Your task to perform on an android device: turn off improve location accuracy Image 0: 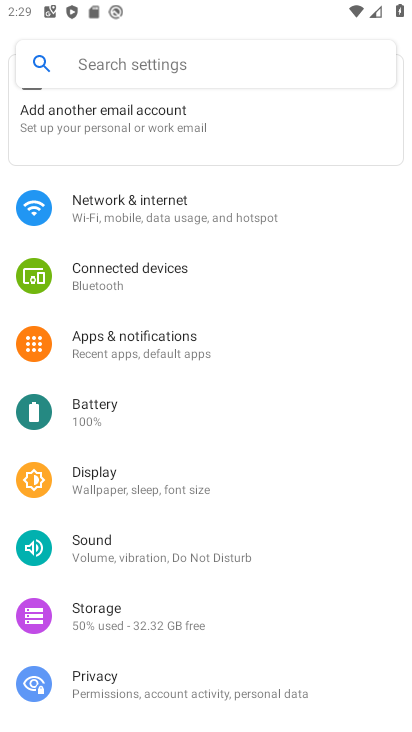
Step 0: press home button
Your task to perform on an android device: turn off improve location accuracy Image 1: 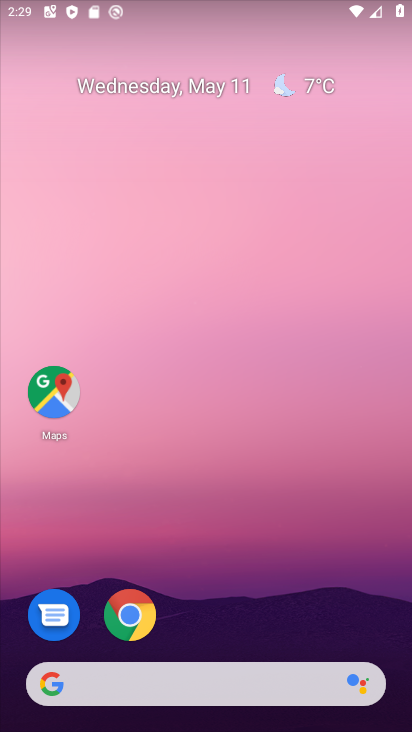
Step 1: drag from (286, 431) to (306, 195)
Your task to perform on an android device: turn off improve location accuracy Image 2: 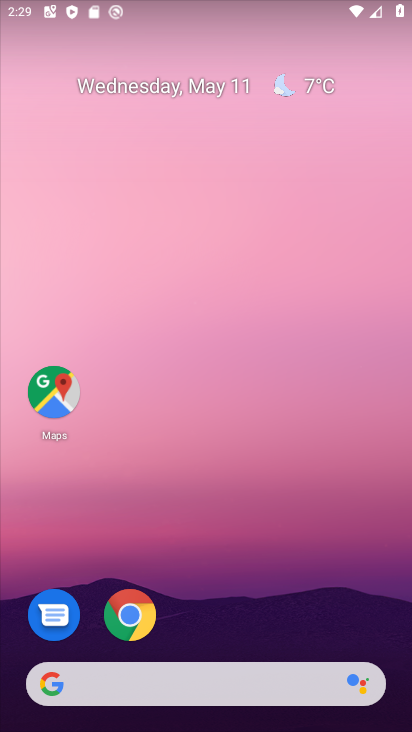
Step 2: drag from (307, 615) to (311, 192)
Your task to perform on an android device: turn off improve location accuracy Image 3: 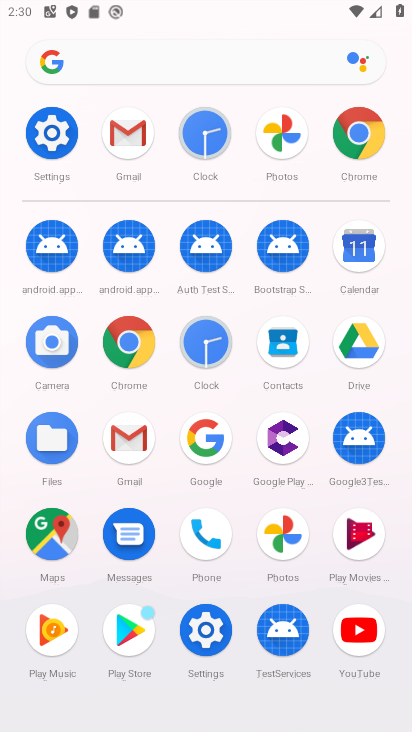
Step 3: click (48, 141)
Your task to perform on an android device: turn off improve location accuracy Image 4: 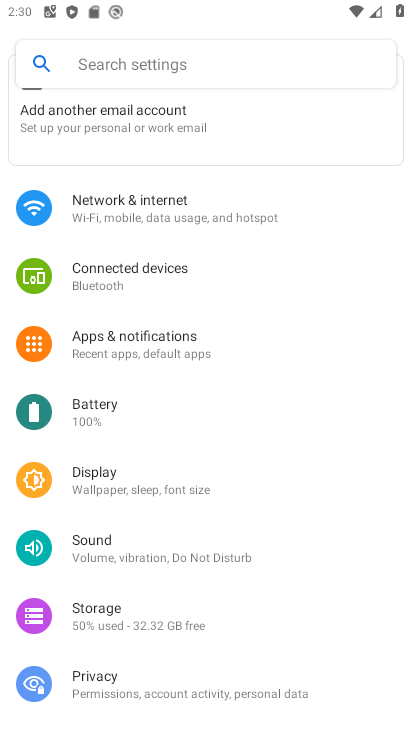
Step 4: drag from (188, 565) to (247, 169)
Your task to perform on an android device: turn off improve location accuracy Image 5: 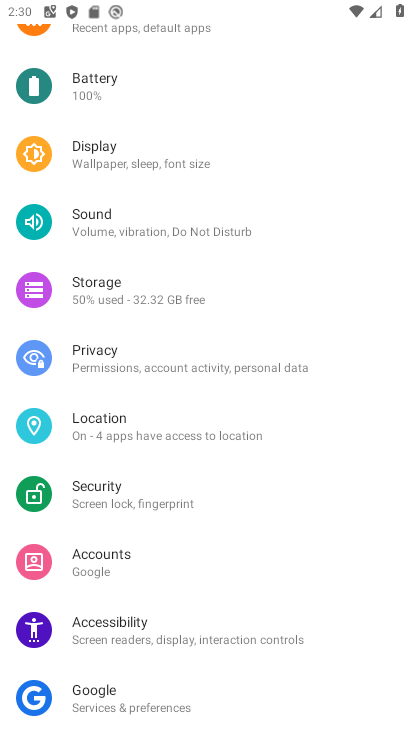
Step 5: drag from (149, 600) to (234, 728)
Your task to perform on an android device: turn off improve location accuracy Image 6: 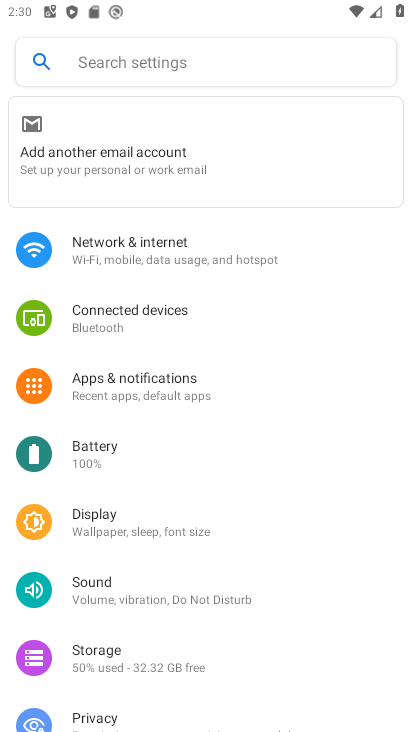
Step 6: drag from (214, 588) to (245, 401)
Your task to perform on an android device: turn off improve location accuracy Image 7: 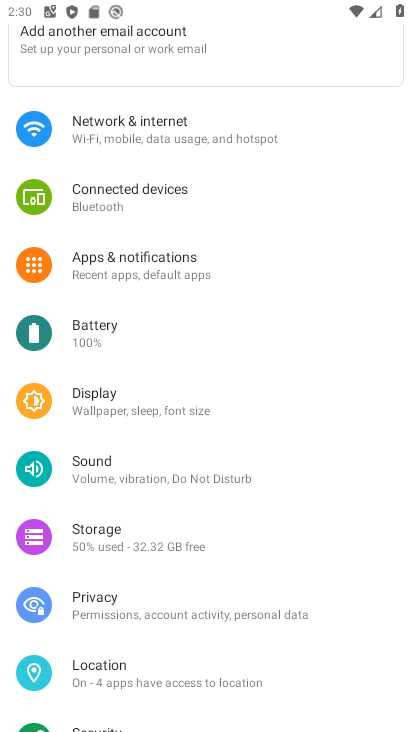
Step 7: click (147, 609)
Your task to perform on an android device: turn off improve location accuracy Image 8: 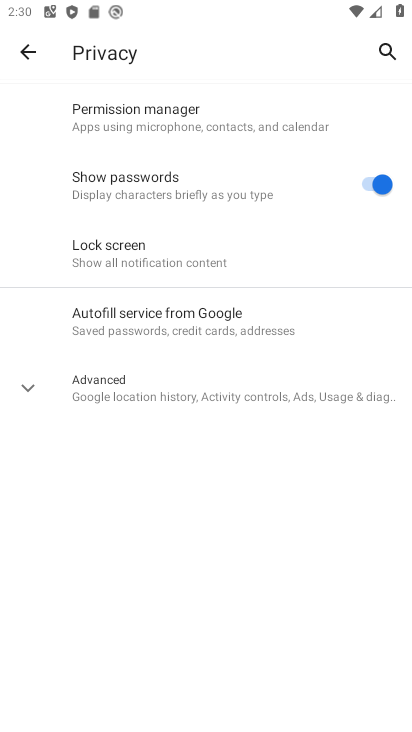
Step 8: click (222, 388)
Your task to perform on an android device: turn off improve location accuracy Image 9: 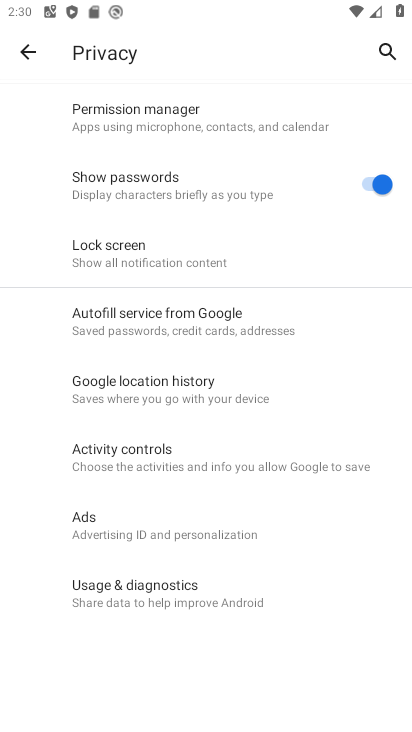
Step 9: click (25, 60)
Your task to perform on an android device: turn off improve location accuracy Image 10: 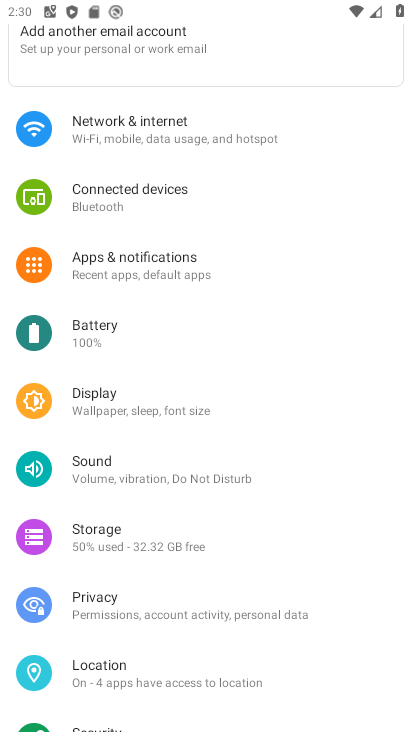
Step 10: click (131, 671)
Your task to perform on an android device: turn off improve location accuracy Image 11: 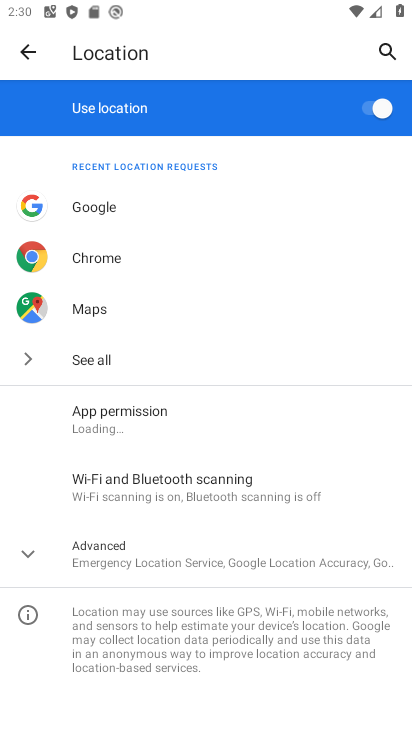
Step 11: click (155, 554)
Your task to perform on an android device: turn off improve location accuracy Image 12: 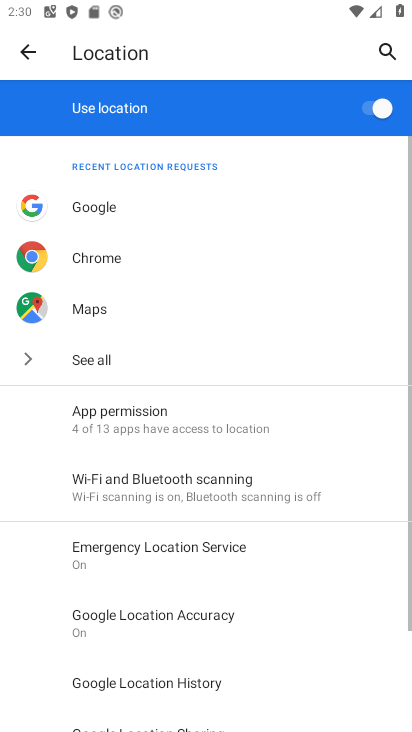
Step 12: drag from (319, 632) to (330, 139)
Your task to perform on an android device: turn off improve location accuracy Image 13: 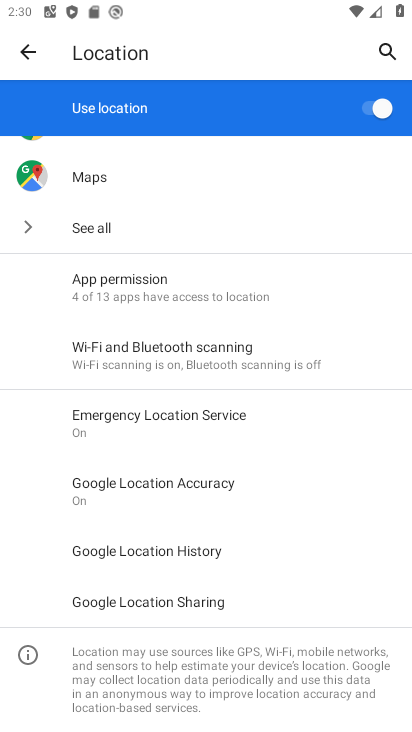
Step 13: click (200, 482)
Your task to perform on an android device: turn off improve location accuracy Image 14: 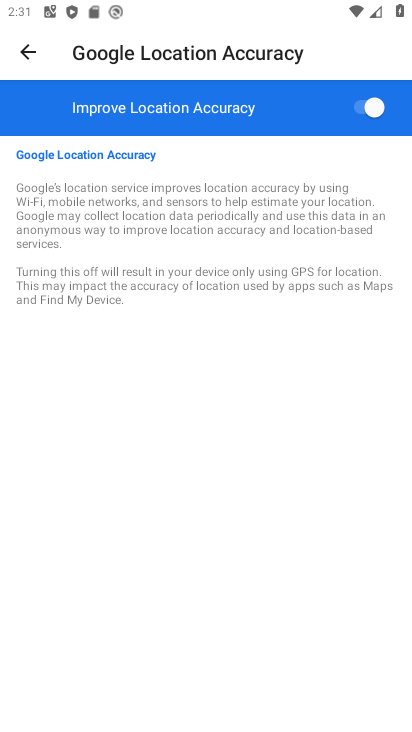
Step 14: click (368, 108)
Your task to perform on an android device: turn off improve location accuracy Image 15: 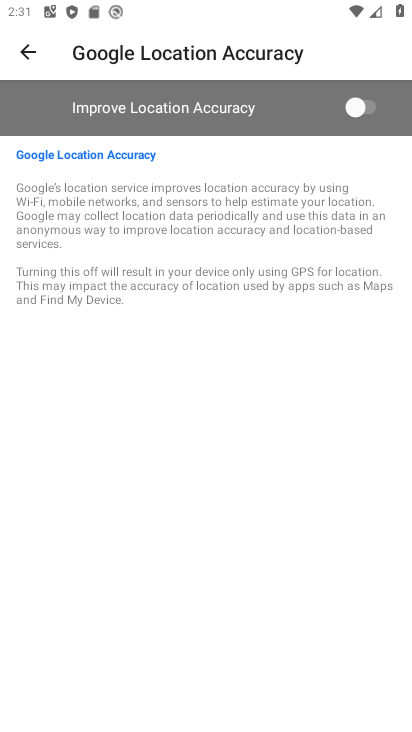
Step 15: task complete